Your task to perform on an android device: check data usage Image 0: 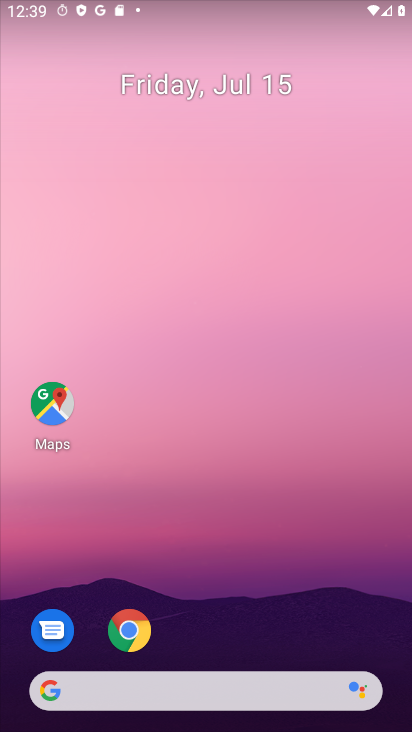
Step 0: drag from (217, 657) to (350, 13)
Your task to perform on an android device: check data usage Image 1: 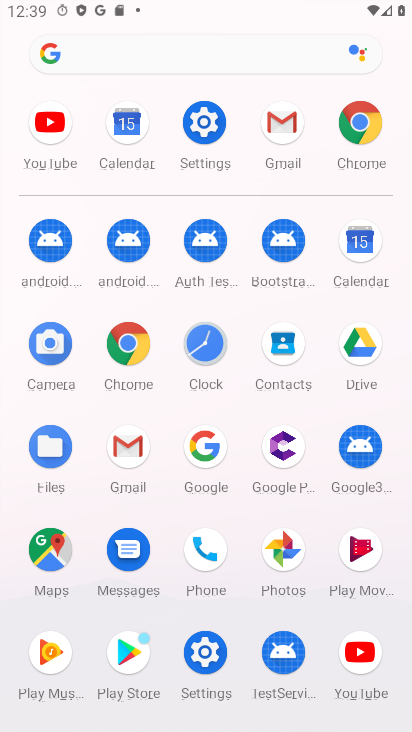
Step 1: click (206, 652)
Your task to perform on an android device: check data usage Image 2: 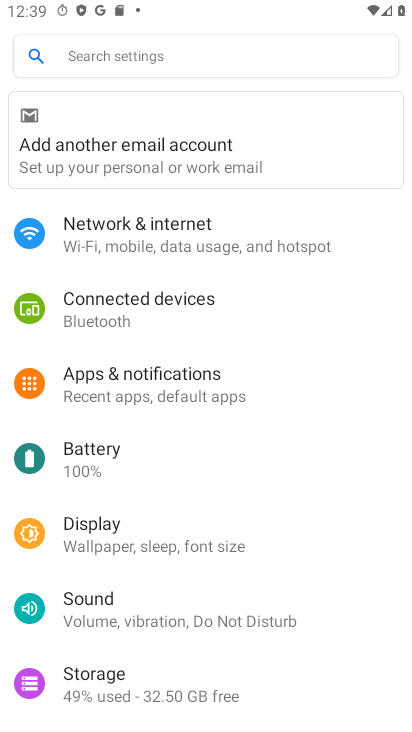
Step 2: click (145, 239)
Your task to perform on an android device: check data usage Image 3: 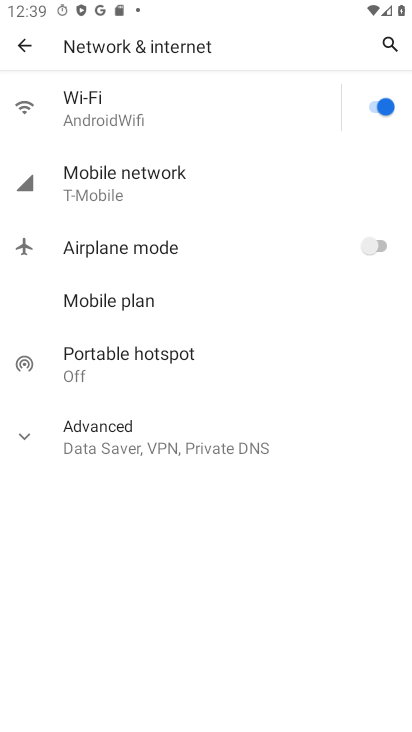
Step 3: click (165, 195)
Your task to perform on an android device: check data usage Image 4: 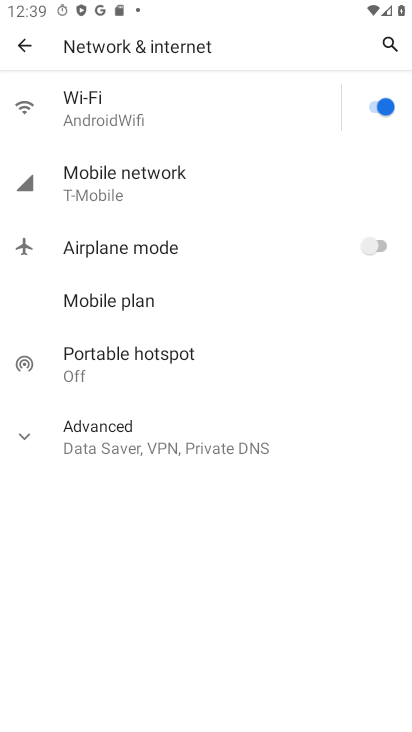
Step 4: click (165, 195)
Your task to perform on an android device: check data usage Image 5: 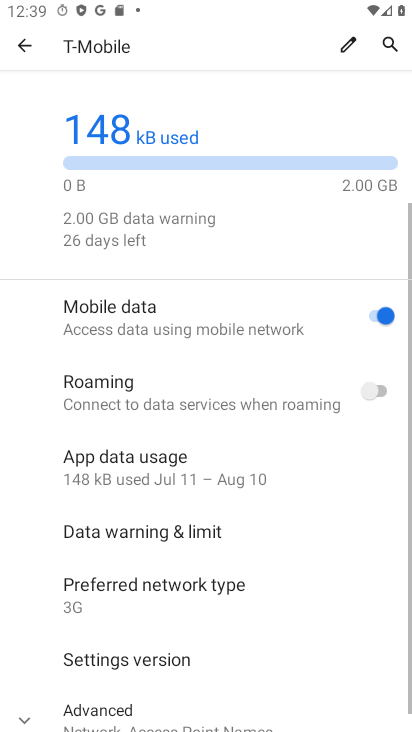
Step 5: task complete